Your task to perform on an android device: Open calendar and show me the fourth week of next month Image 0: 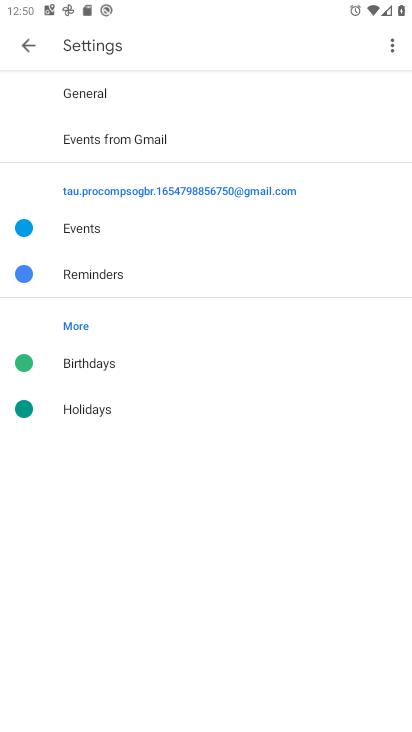
Step 0: press home button
Your task to perform on an android device: Open calendar and show me the fourth week of next month Image 1: 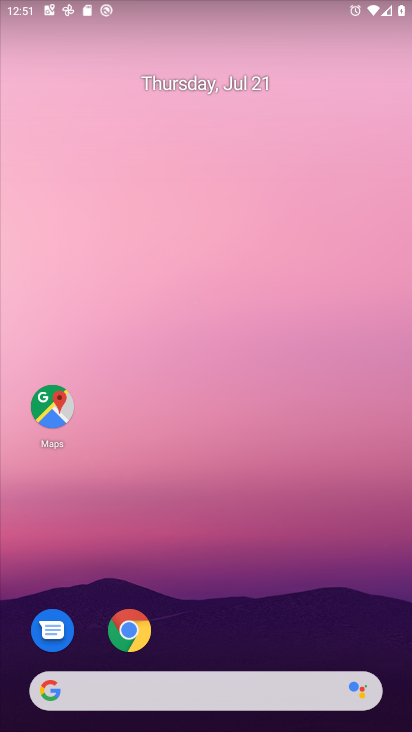
Step 1: drag from (220, 624) to (266, 86)
Your task to perform on an android device: Open calendar and show me the fourth week of next month Image 2: 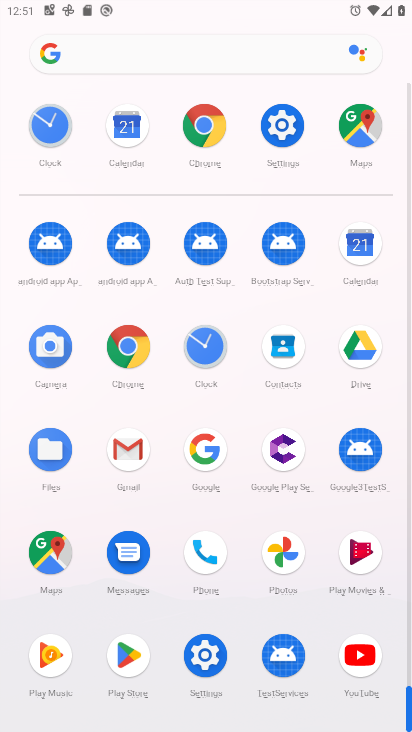
Step 2: click (366, 231)
Your task to perform on an android device: Open calendar and show me the fourth week of next month Image 3: 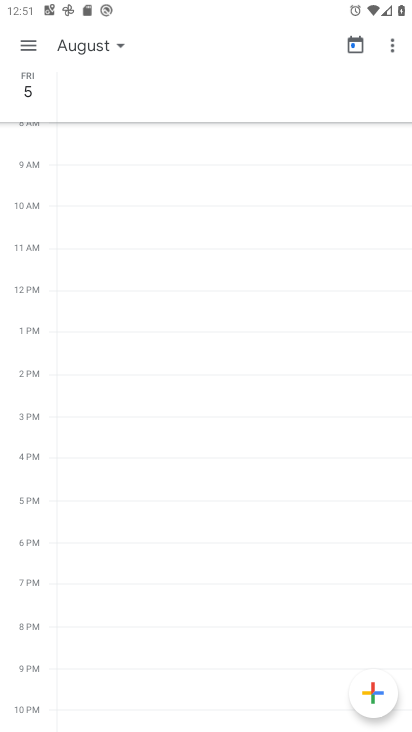
Step 3: click (84, 36)
Your task to perform on an android device: Open calendar and show me the fourth week of next month Image 4: 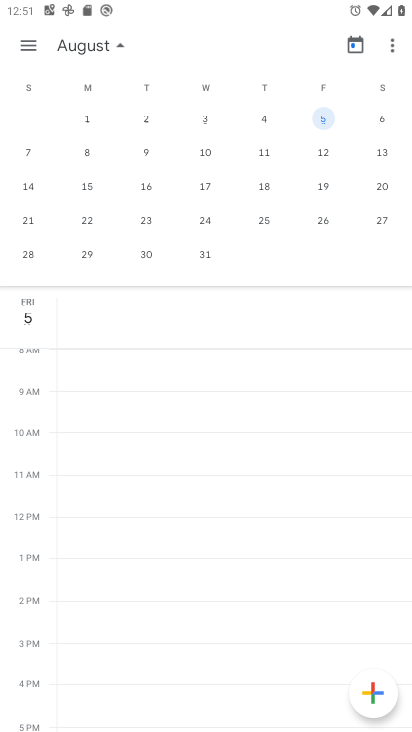
Step 4: click (319, 212)
Your task to perform on an android device: Open calendar and show me the fourth week of next month Image 5: 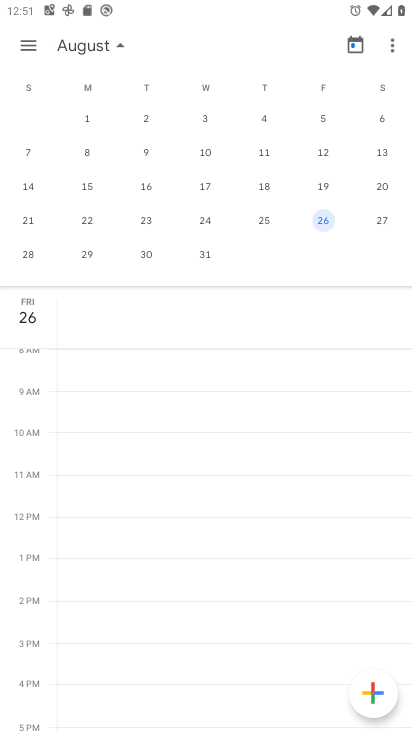
Step 5: task complete